Your task to perform on an android device: open app "Facebook Lite" (install if not already installed) Image 0: 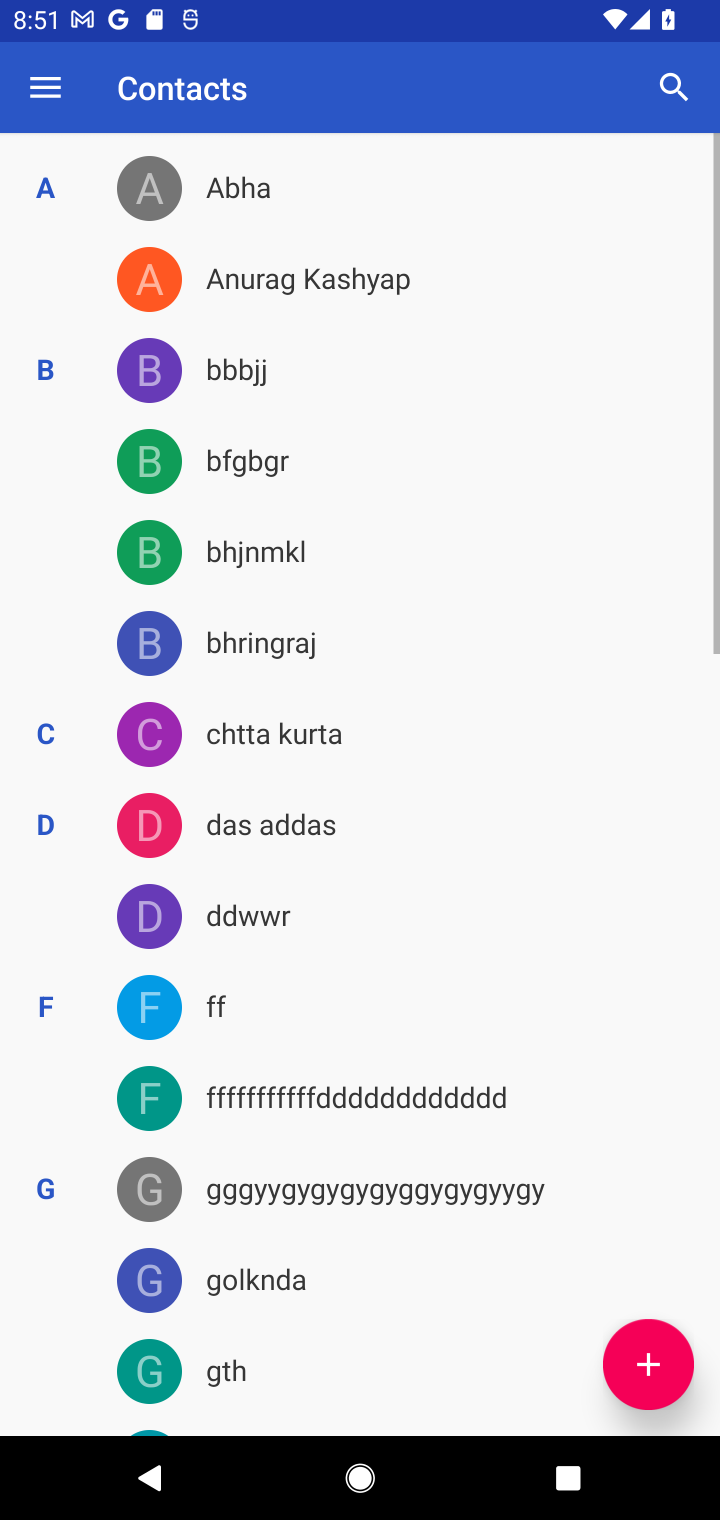
Step 0: press home button
Your task to perform on an android device: open app "Facebook Lite" (install if not already installed) Image 1: 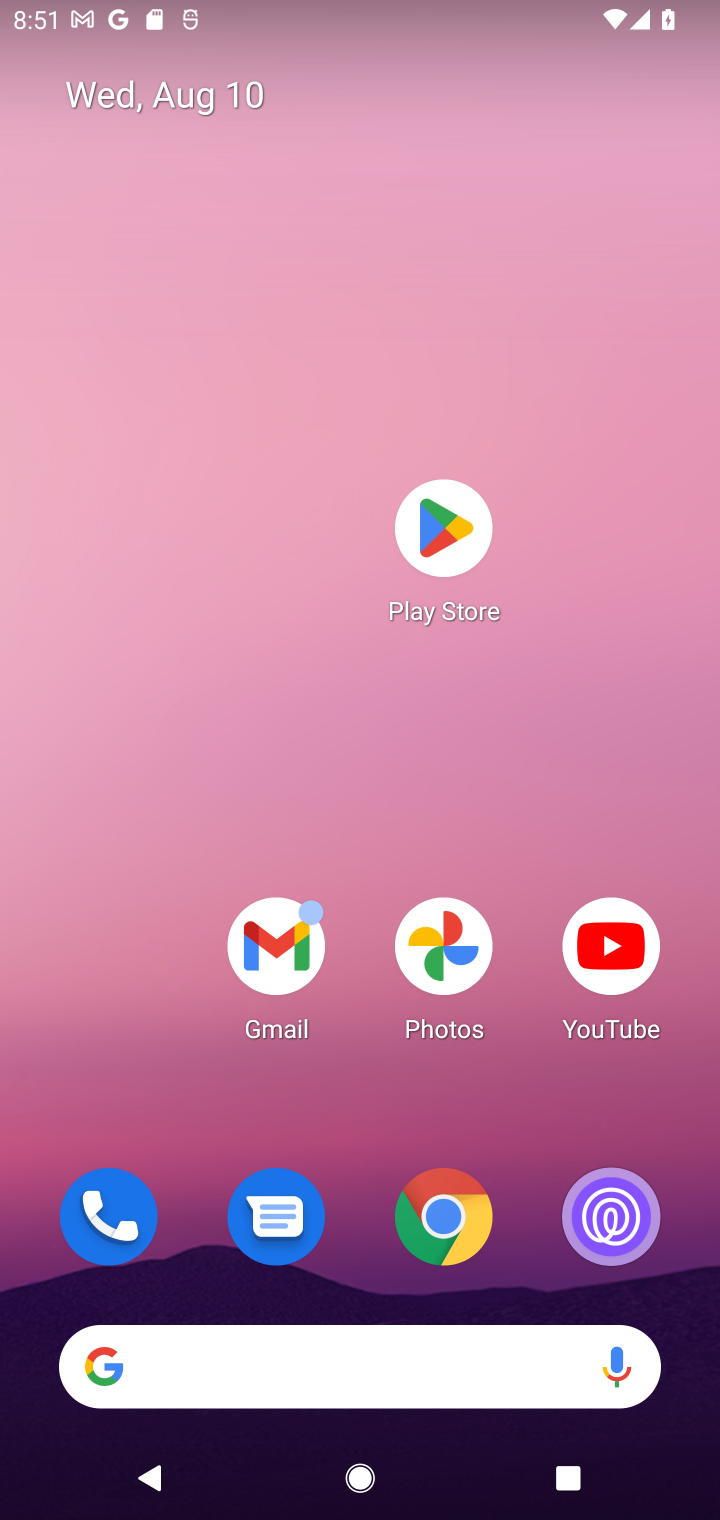
Step 1: click (436, 537)
Your task to perform on an android device: open app "Facebook Lite" (install if not already installed) Image 2: 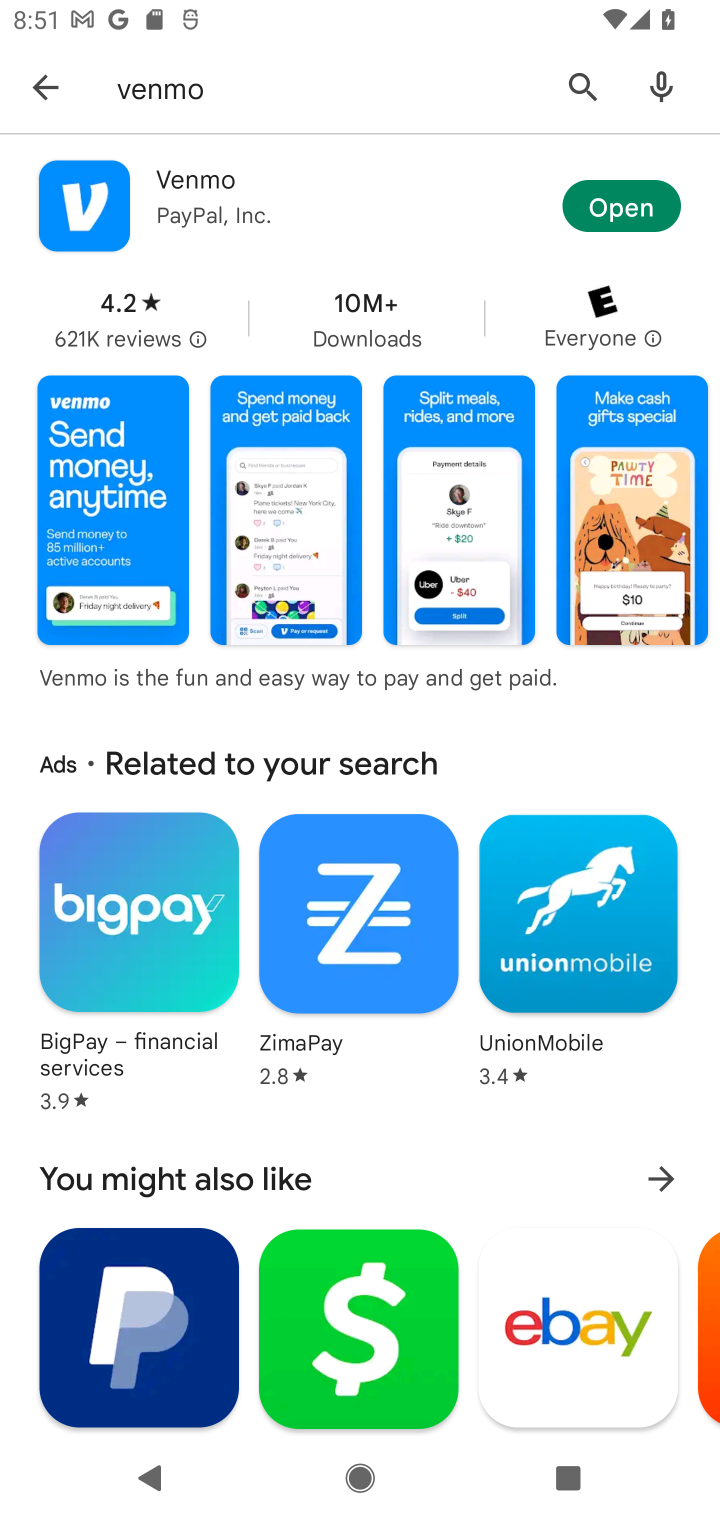
Step 2: click (436, 533)
Your task to perform on an android device: open app "Facebook Lite" (install if not already installed) Image 3: 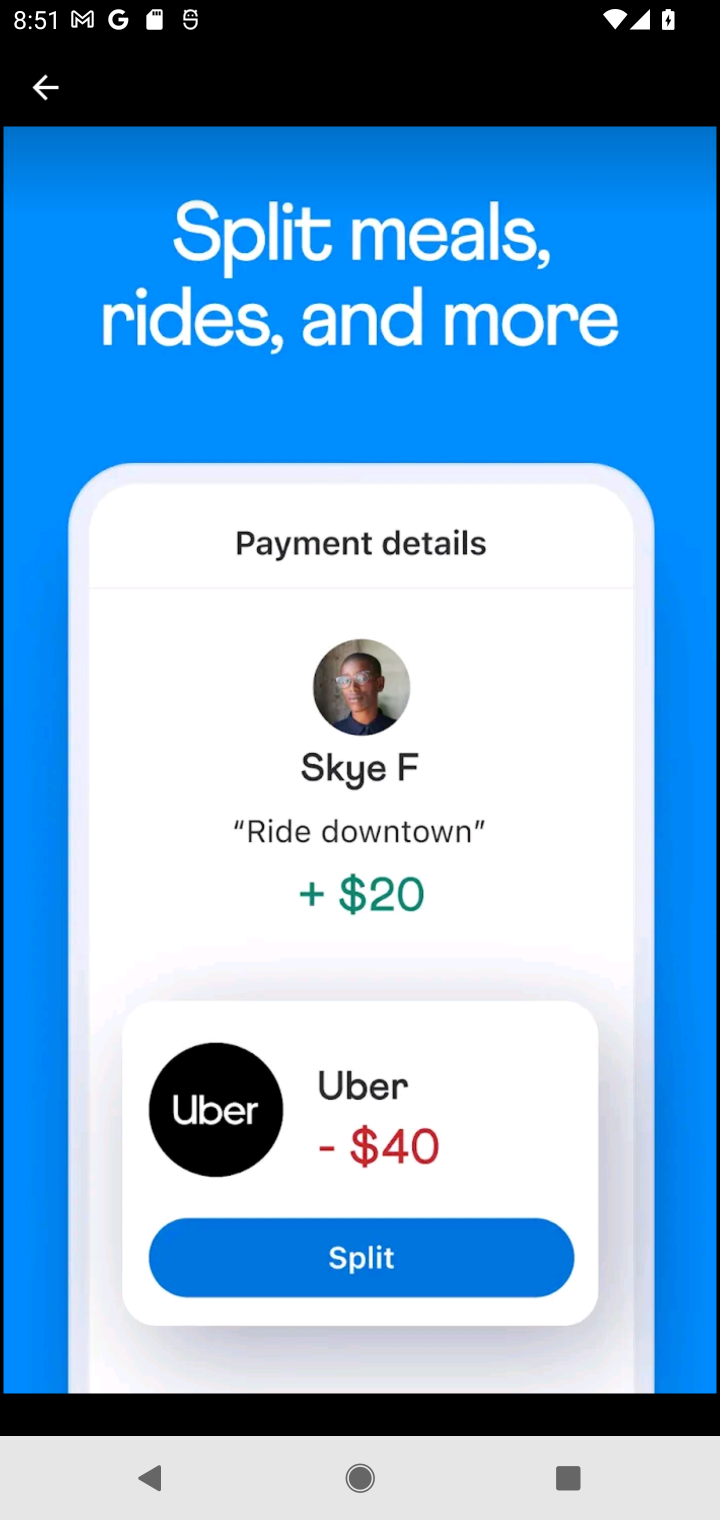
Step 3: press home button
Your task to perform on an android device: open app "Facebook Lite" (install if not already installed) Image 4: 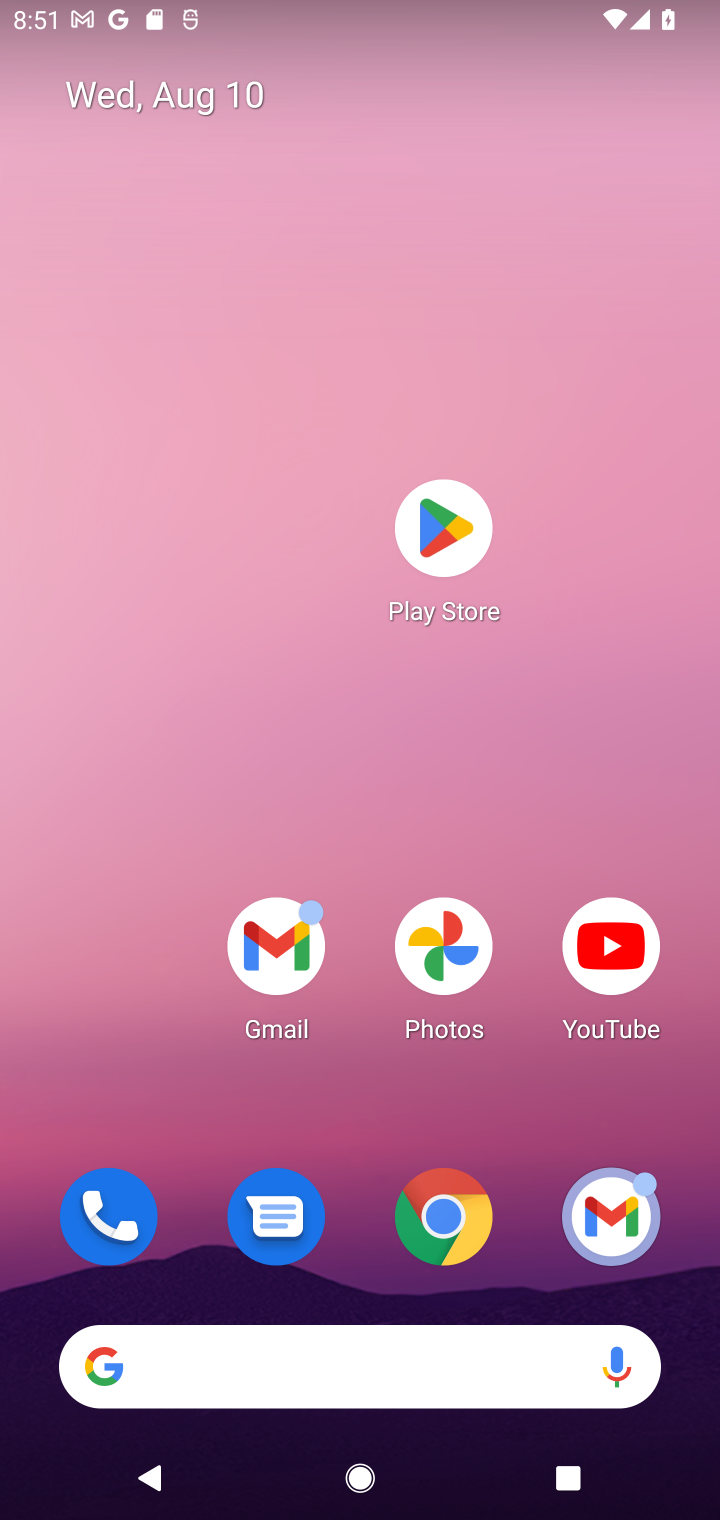
Step 4: click (427, 538)
Your task to perform on an android device: open app "Facebook Lite" (install if not already installed) Image 5: 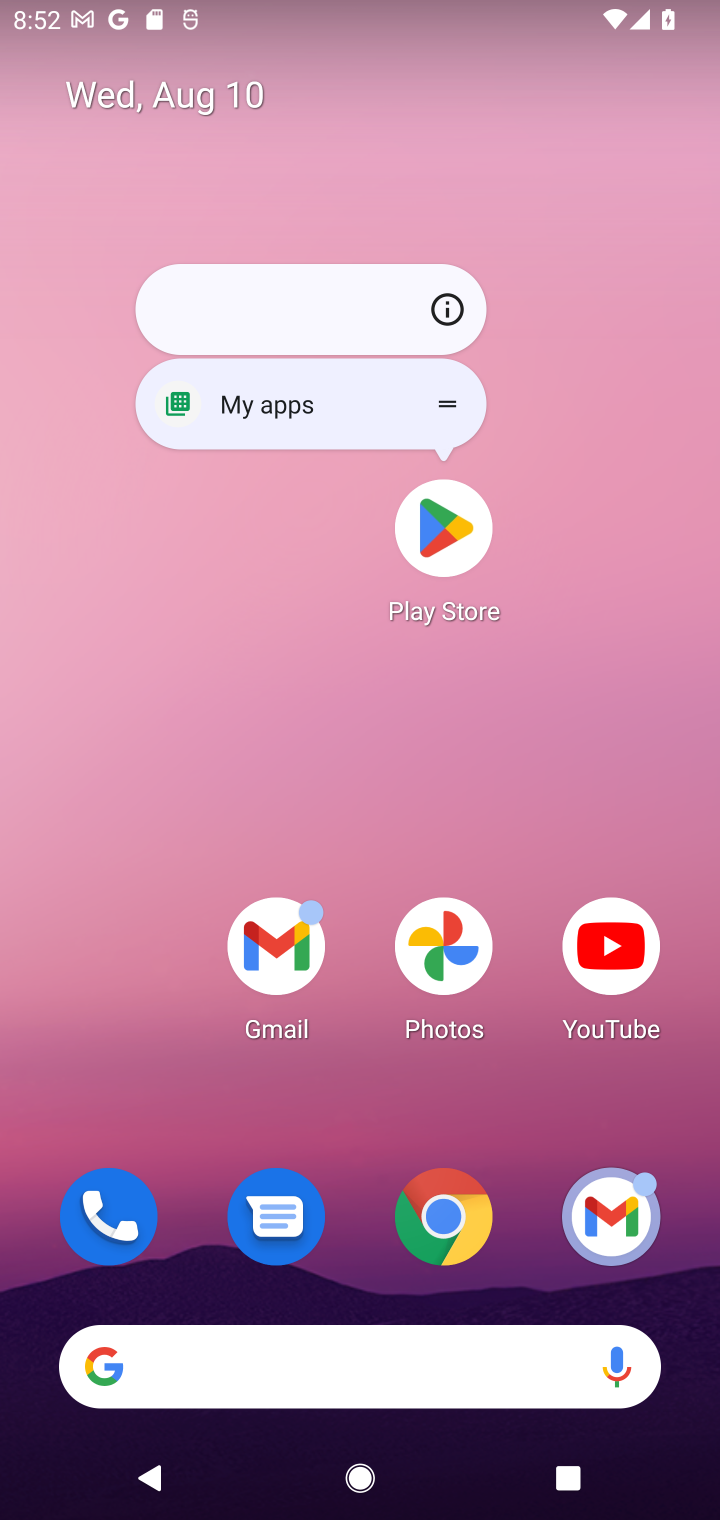
Step 5: click (427, 537)
Your task to perform on an android device: open app "Facebook Lite" (install if not already installed) Image 6: 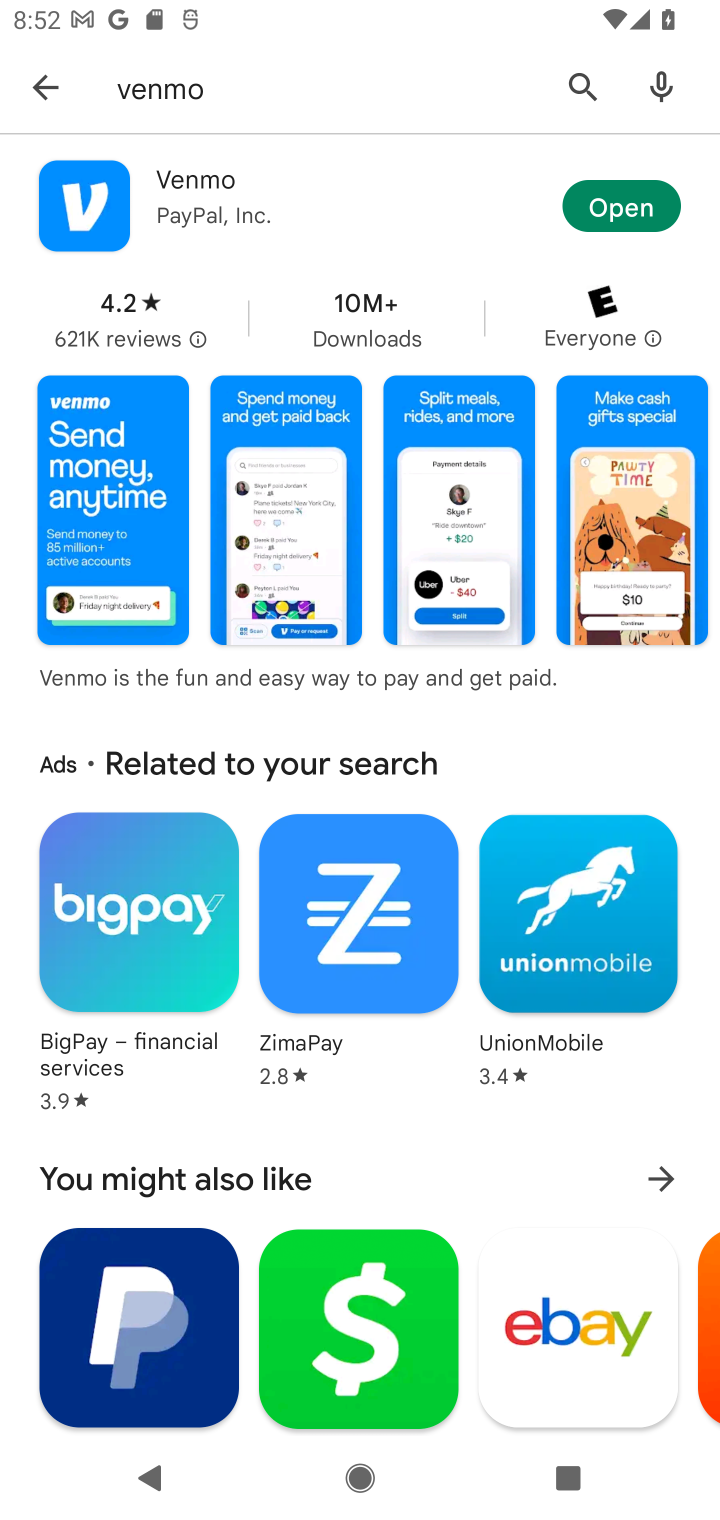
Step 6: click (580, 78)
Your task to perform on an android device: open app "Facebook Lite" (install if not already installed) Image 7: 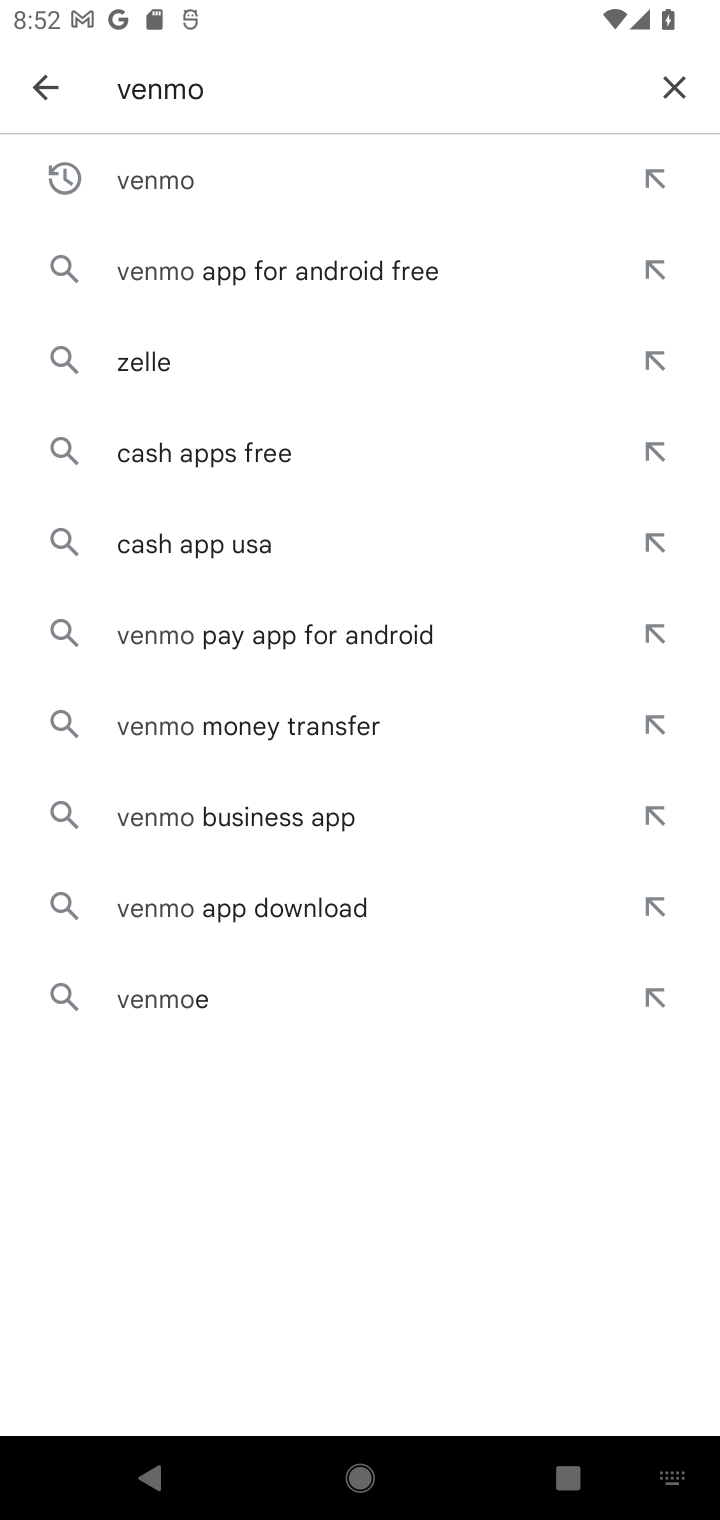
Step 7: click (659, 86)
Your task to perform on an android device: open app "Facebook Lite" (install if not already installed) Image 8: 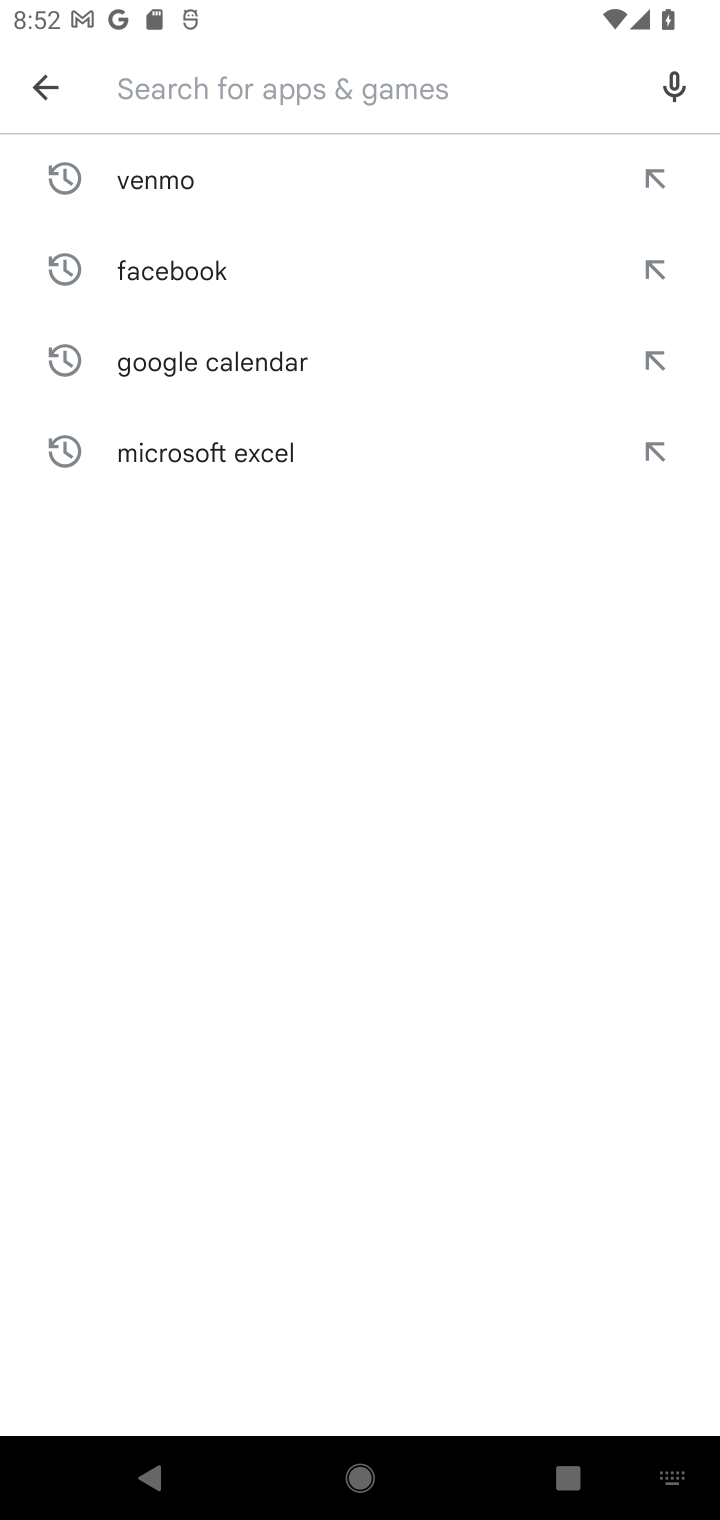
Step 8: type "Facebook Lite"
Your task to perform on an android device: open app "Facebook Lite" (install if not already installed) Image 9: 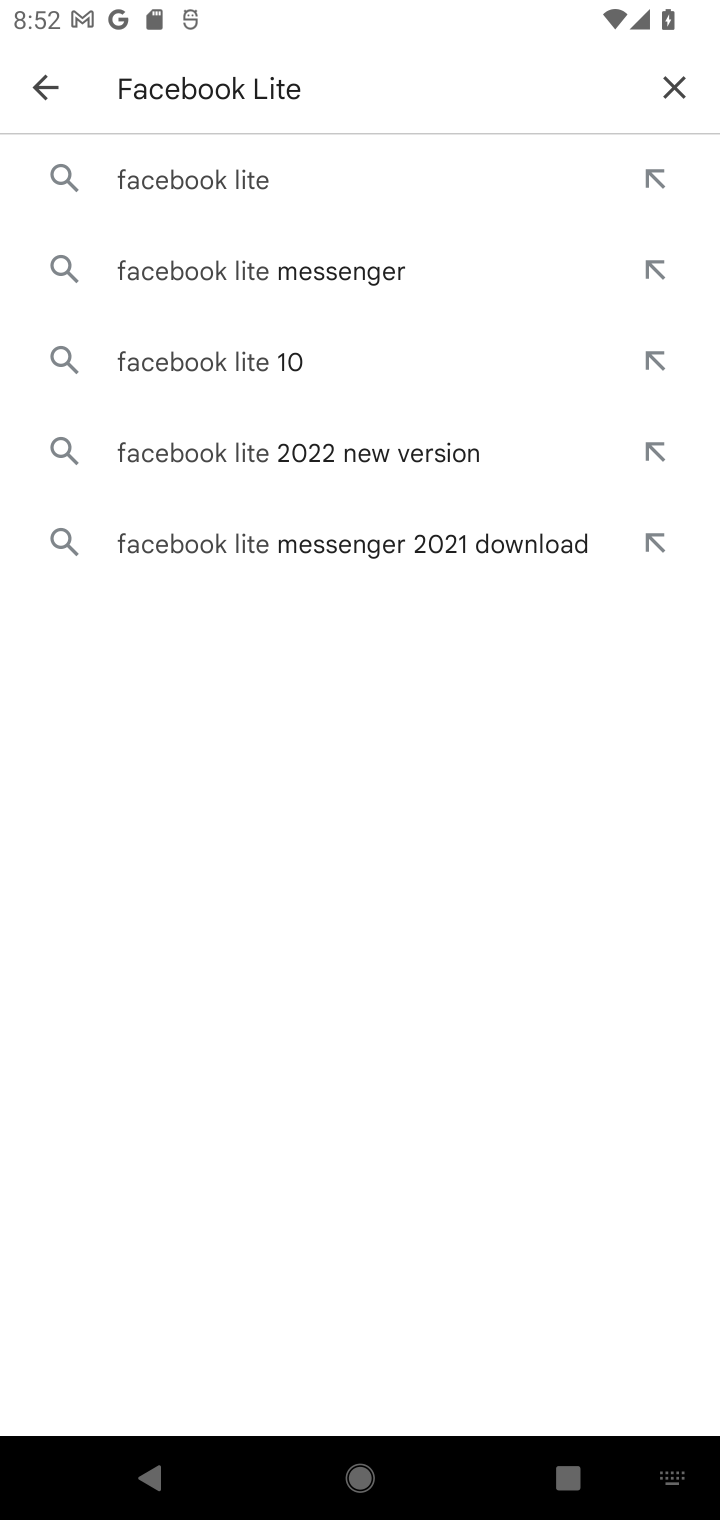
Step 9: click (266, 177)
Your task to perform on an android device: open app "Facebook Lite" (install if not already installed) Image 10: 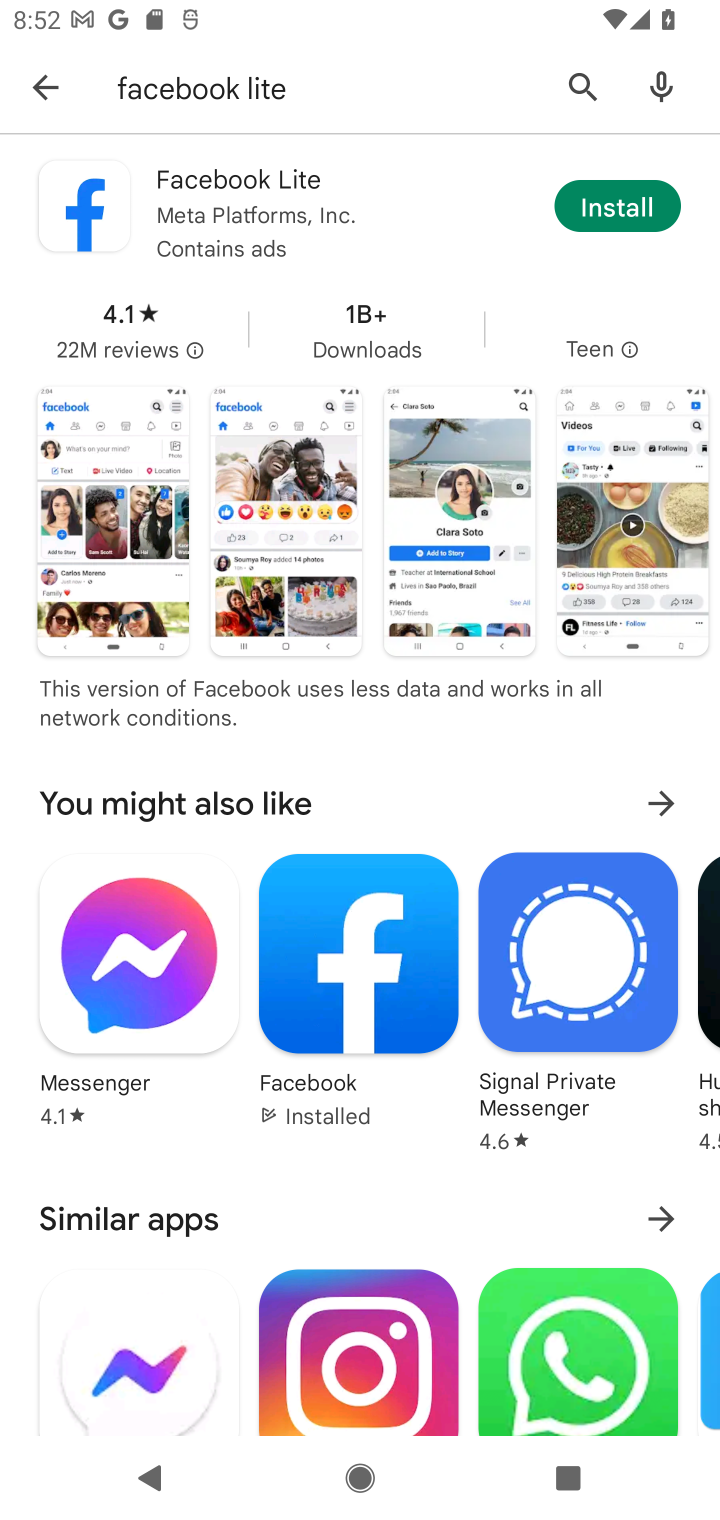
Step 10: click (633, 209)
Your task to perform on an android device: open app "Facebook Lite" (install if not already installed) Image 11: 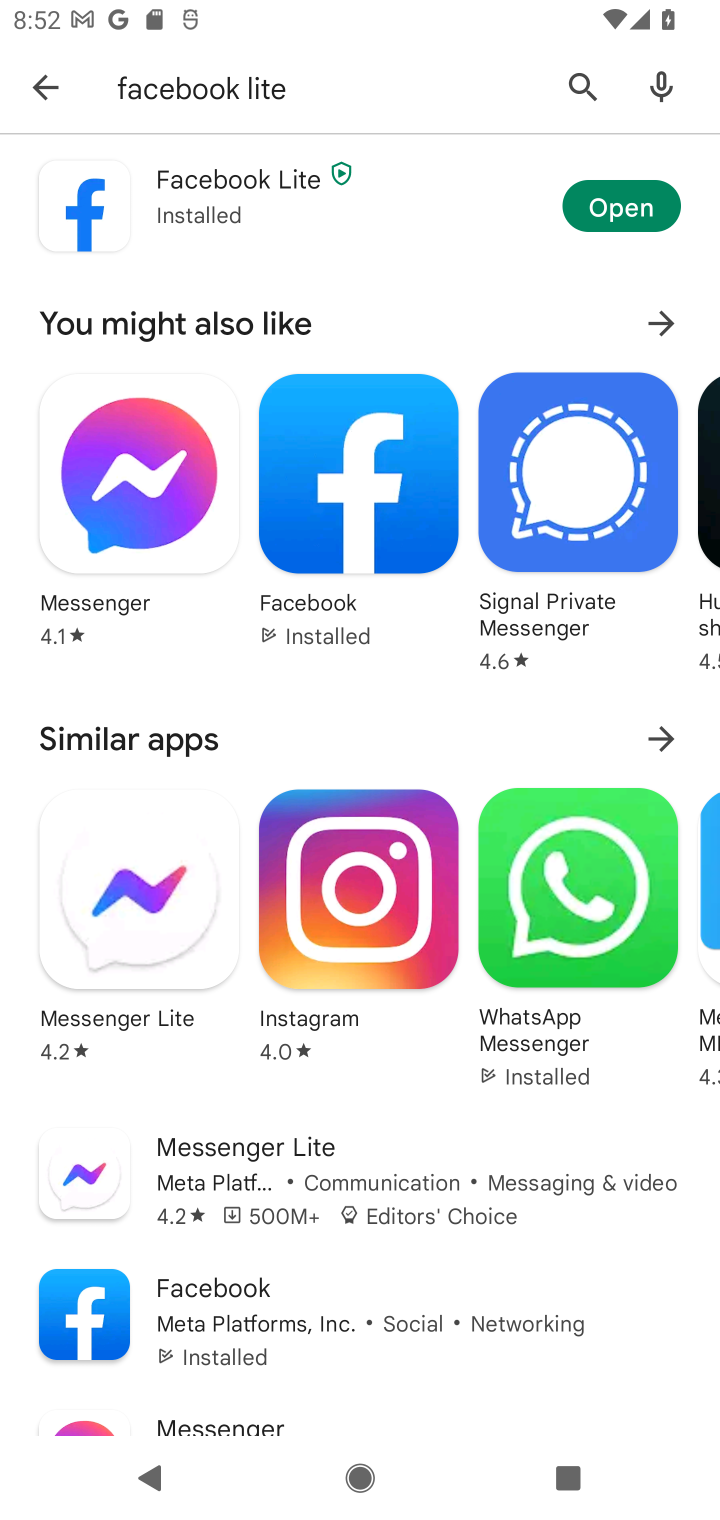
Step 11: click (635, 203)
Your task to perform on an android device: open app "Facebook Lite" (install if not already installed) Image 12: 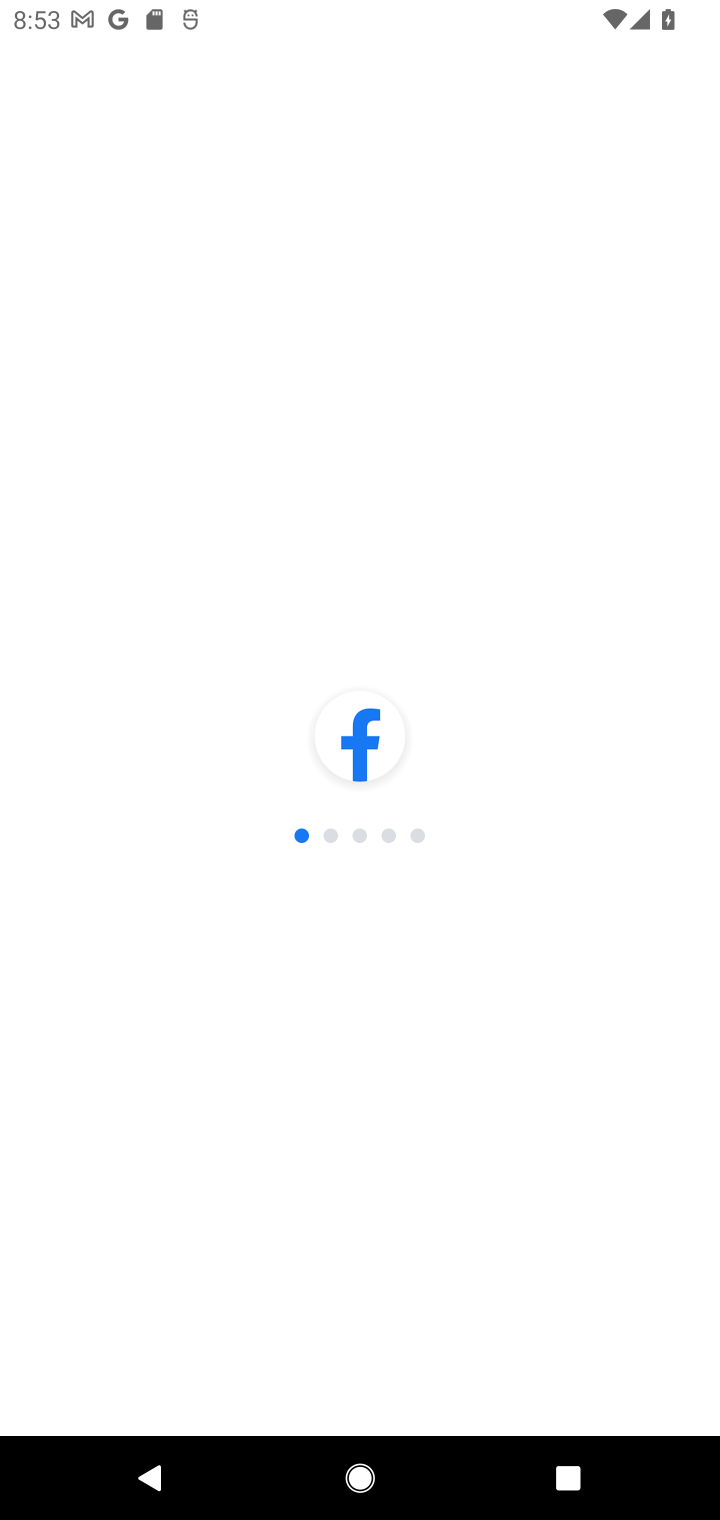
Step 12: task complete